Your task to perform on an android device: Add "razer blackwidow" to the cart on costco, then select checkout. Image 0: 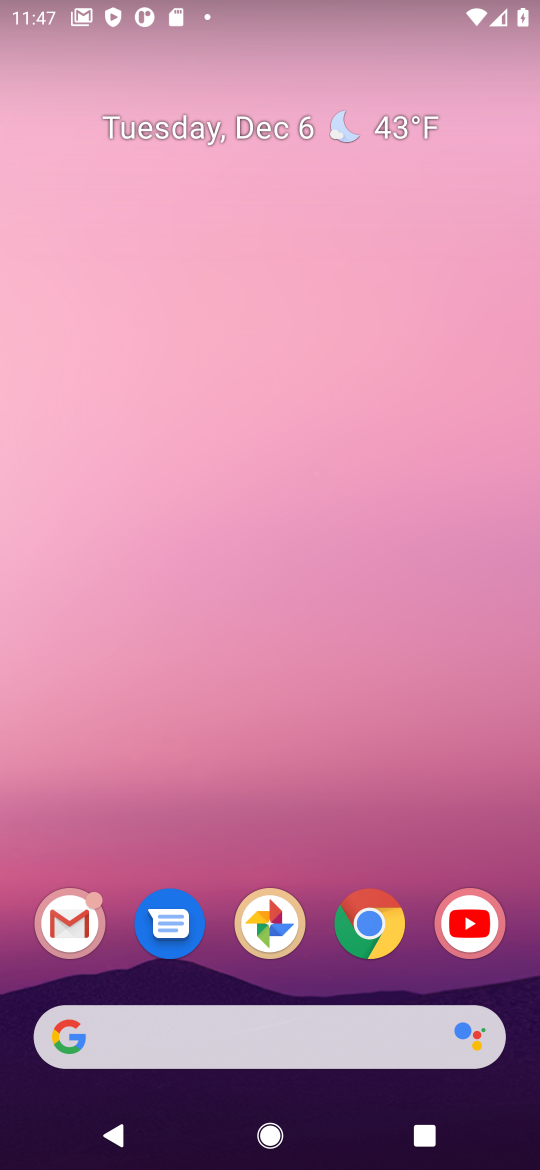
Step 0: task complete